Your task to perform on an android device: turn off translation in the chrome app Image 0: 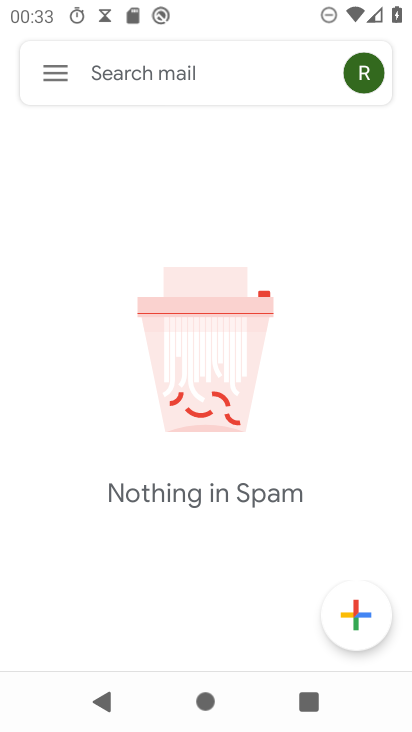
Step 0: press home button
Your task to perform on an android device: turn off translation in the chrome app Image 1: 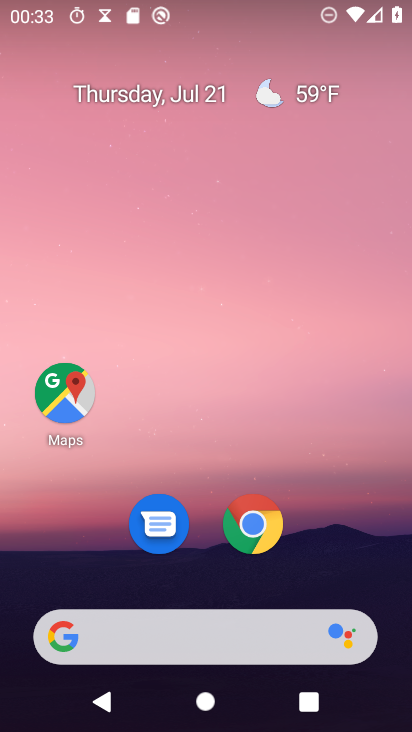
Step 1: click (253, 527)
Your task to perform on an android device: turn off translation in the chrome app Image 2: 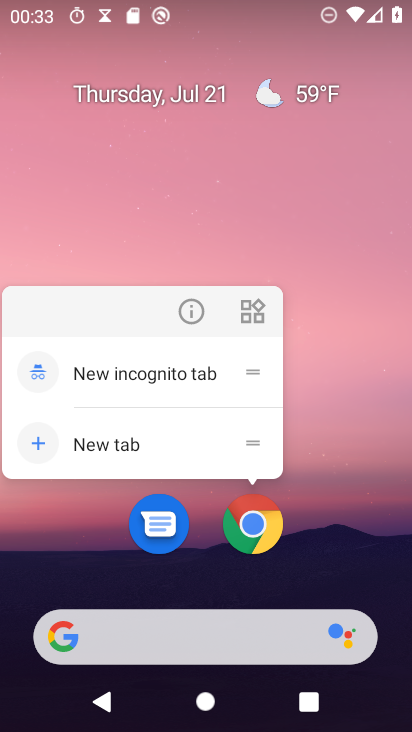
Step 2: click (255, 538)
Your task to perform on an android device: turn off translation in the chrome app Image 3: 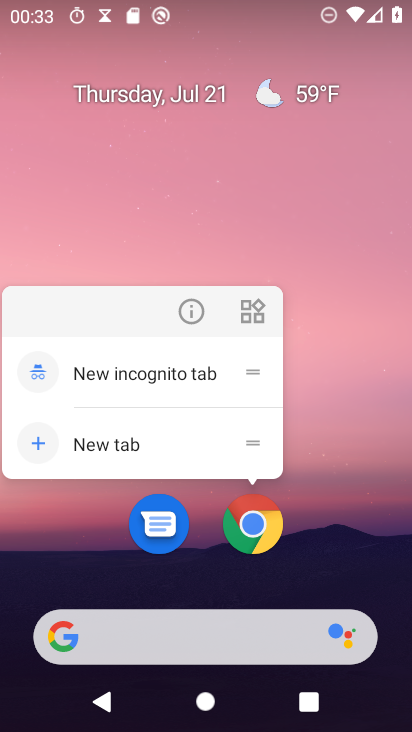
Step 3: click (239, 522)
Your task to perform on an android device: turn off translation in the chrome app Image 4: 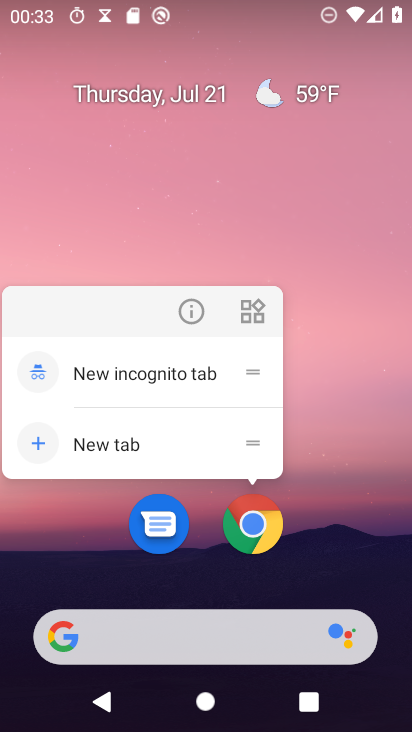
Step 4: click (256, 524)
Your task to perform on an android device: turn off translation in the chrome app Image 5: 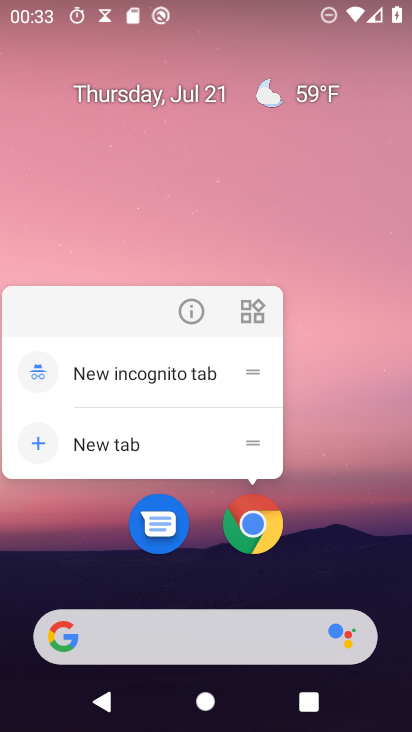
Step 5: click (257, 531)
Your task to perform on an android device: turn off translation in the chrome app Image 6: 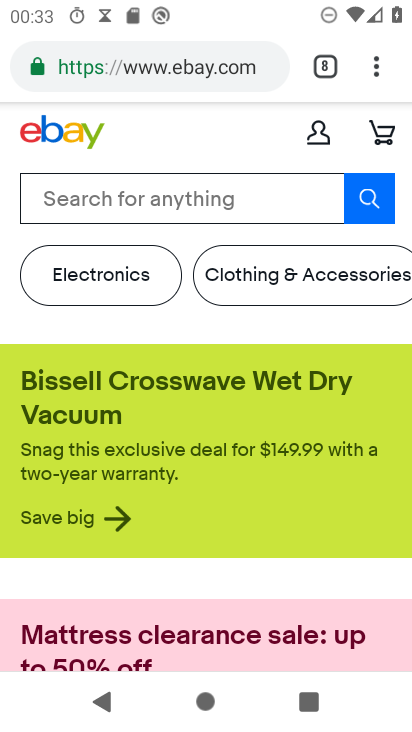
Step 6: drag from (376, 65) to (211, 518)
Your task to perform on an android device: turn off translation in the chrome app Image 7: 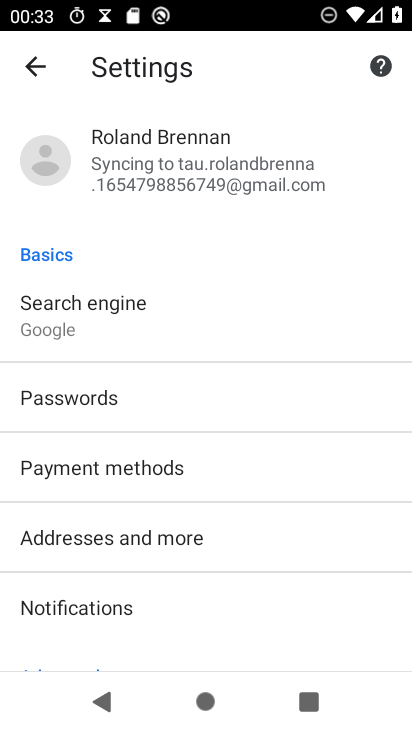
Step 7: drag from (179, 601) to (352, 183)
Your task to perform on an android device: turn off translation in the chrome app Image 8: 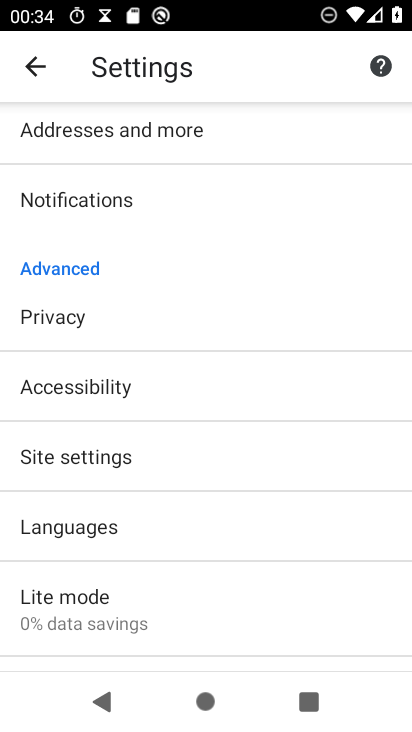
Step 8: click (98, 529)
Your task to perform on an android device: turn off translation in the chrome app Image 9: 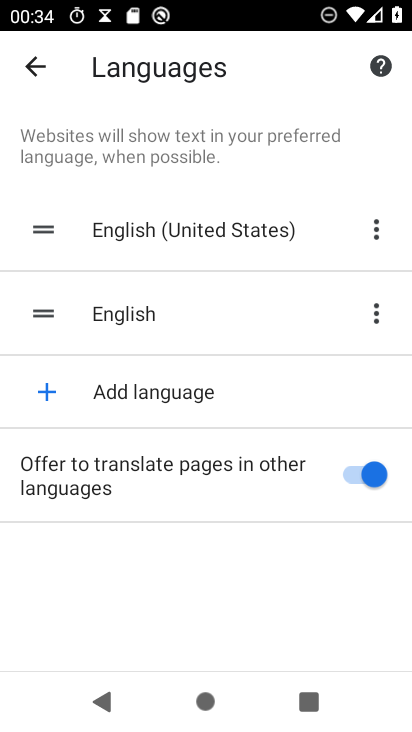
Step 9: click (356, 471)
Your task to perform on an android device: turn off translation in the chrome app Image 10: 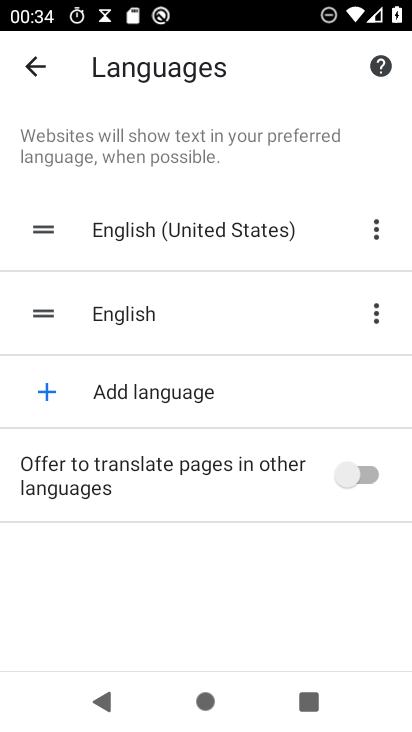
Step 10: task complete